Your task to perform on an android device: turn on javascript in the chrome app Image 0: 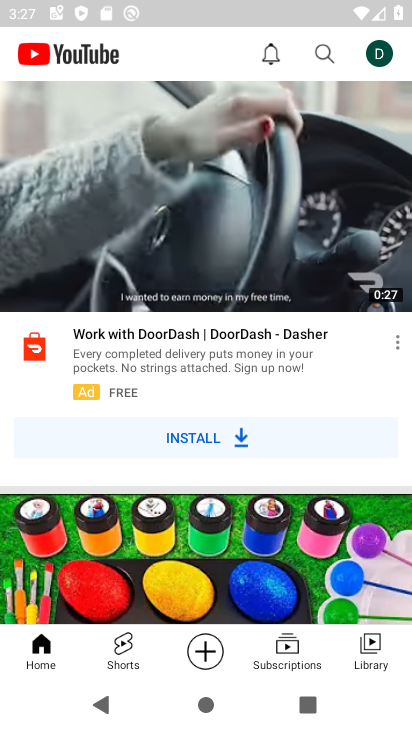
Step 0: press home button
Your task to perform on an android device: turn on javascript in the chrome app Image 1: 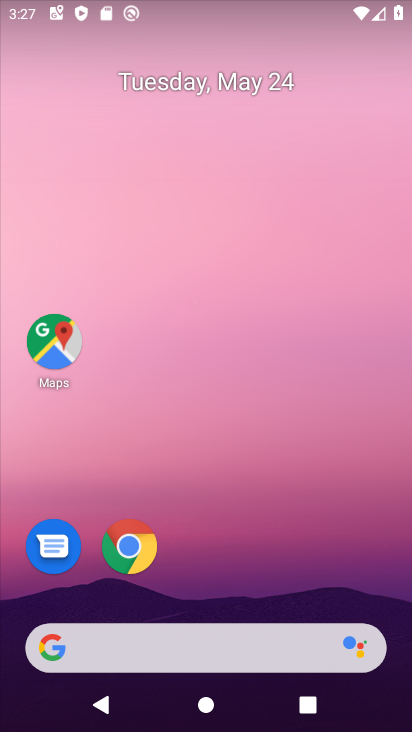
Step 1: click (132, 547)
Your task to perform on an android device: turn on javascript in the chrome app Image 2: 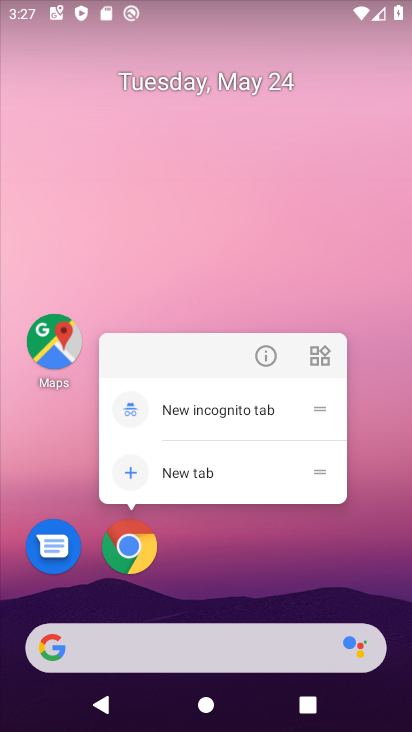
Step 2: click (134, 554)
Your task to perform on an android device: turn on javascript in the chrome app Image 3: 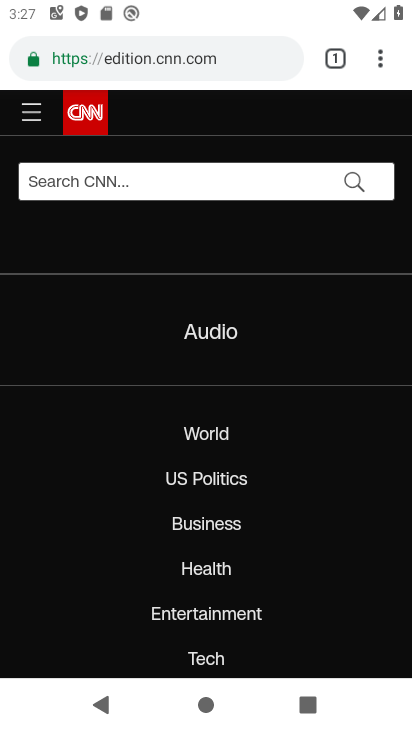
Step 3: click (374, 52)
Your task to perform on an android device: turn on javascript in the chrome app Image 4: 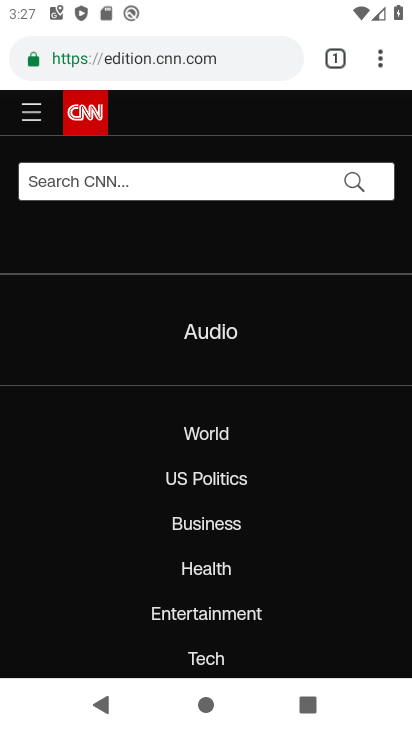
Step 4: click (382, 67)
Your task to perform on an android device: turn on javascript in the chrome app Image 5: 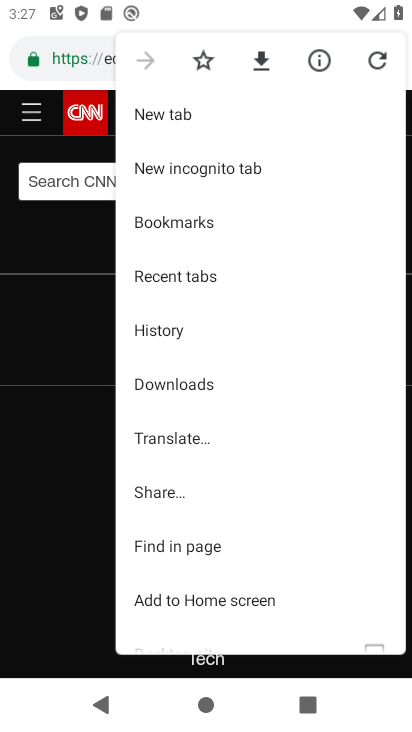
Step 5: drag from (267, 271) to (235, 124)
Your task to perform on an android device: turn on javascript in the chrome app Image 6: 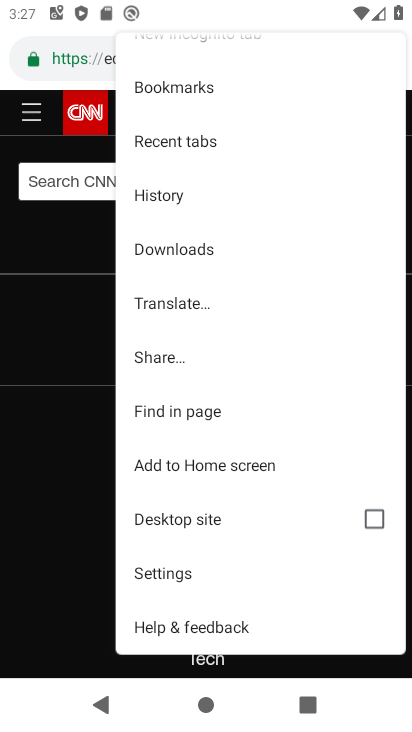
Step 6: click (209, 579)
Your task to perform on an android device: turn on javascript in the chrome app Image 7: 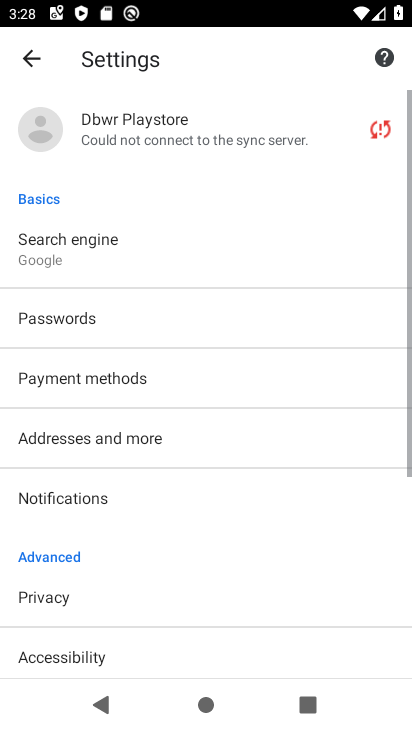
Step 7: drag from (175, 637) to (186, 148)
Your task to perform on an android device: turn on javascript in the chrome app Image 8: 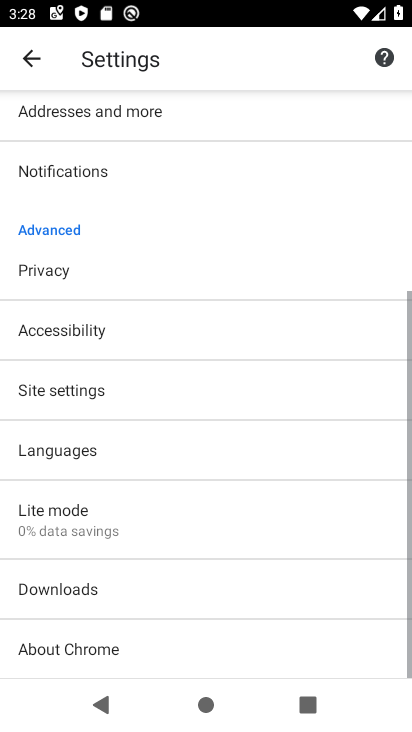
Step 8: click (132, 384)
Your task to perform on an android device: turn on javascript in the chrome app Image 9: 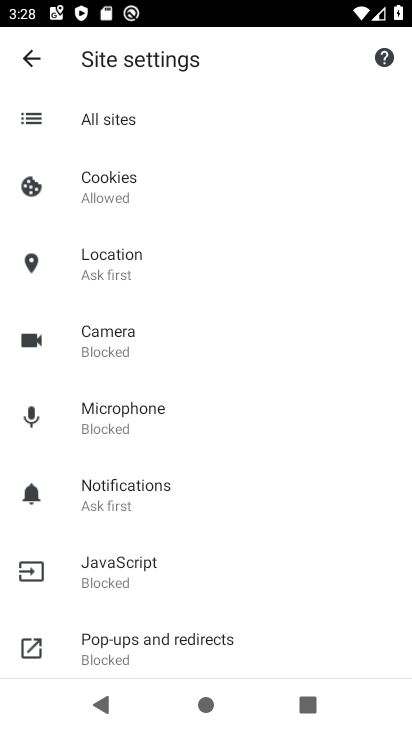
Step 9: click (152, 574)
Your task to perform on an android device: turn on javascript in the chrome app Image 10: 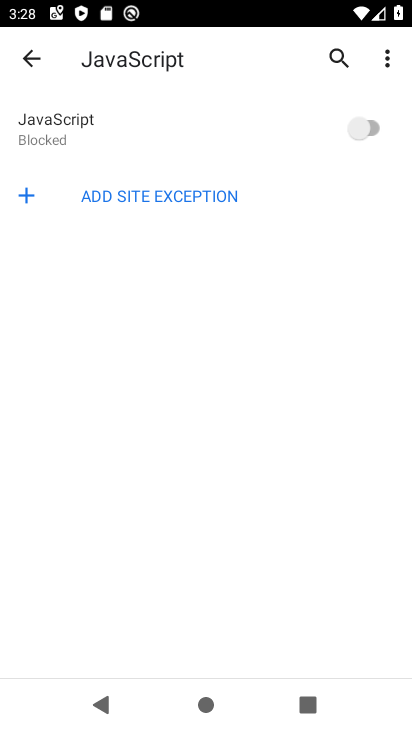
Step 10: click (357, 128)
Your task to perform on an android device: turn on javascript in the chrome app Image 11: 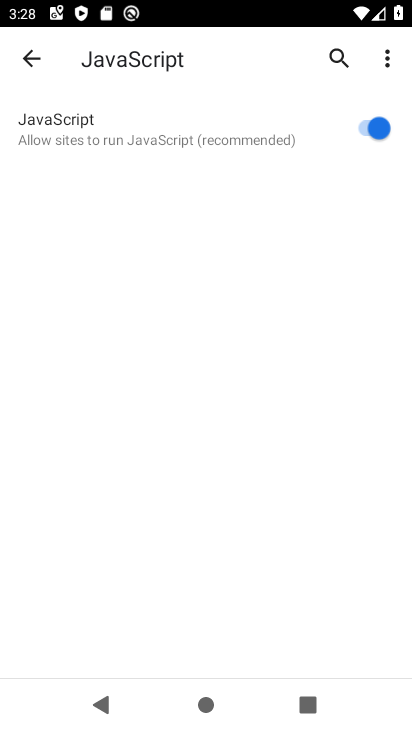
Step 11: task complete